Your task to perform on an android device: turn on airplane mode Image 0: 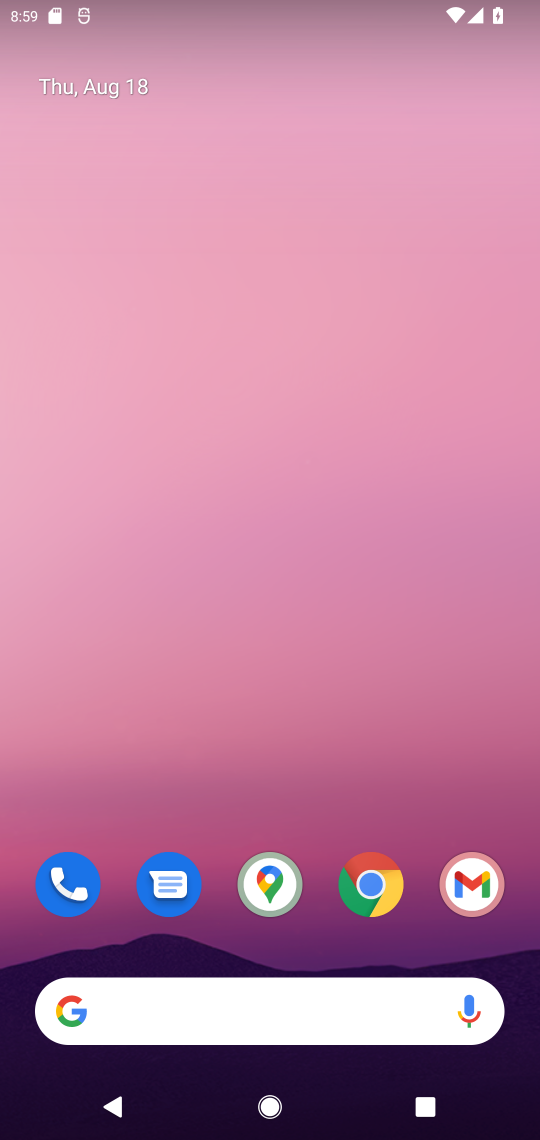
Step 0: drag from (251, 8) to (316, 909)
Your task to perform on an android device: turn on airplane mode Image 1: 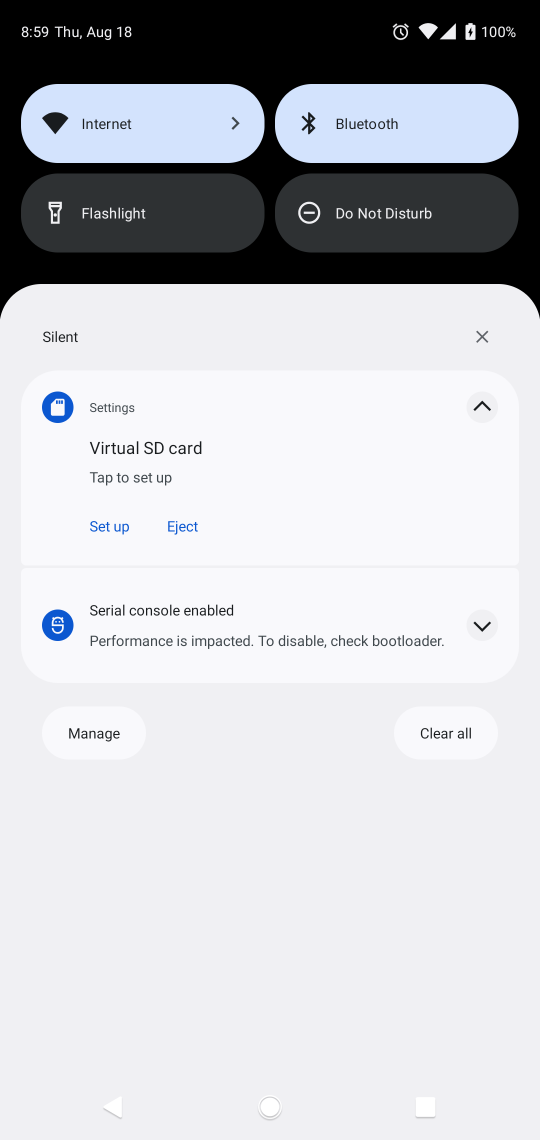
Step 1: drag from (273, 79) to (330, 1060)
Your task to perform on an android device: turn on airplane mode Image 2: 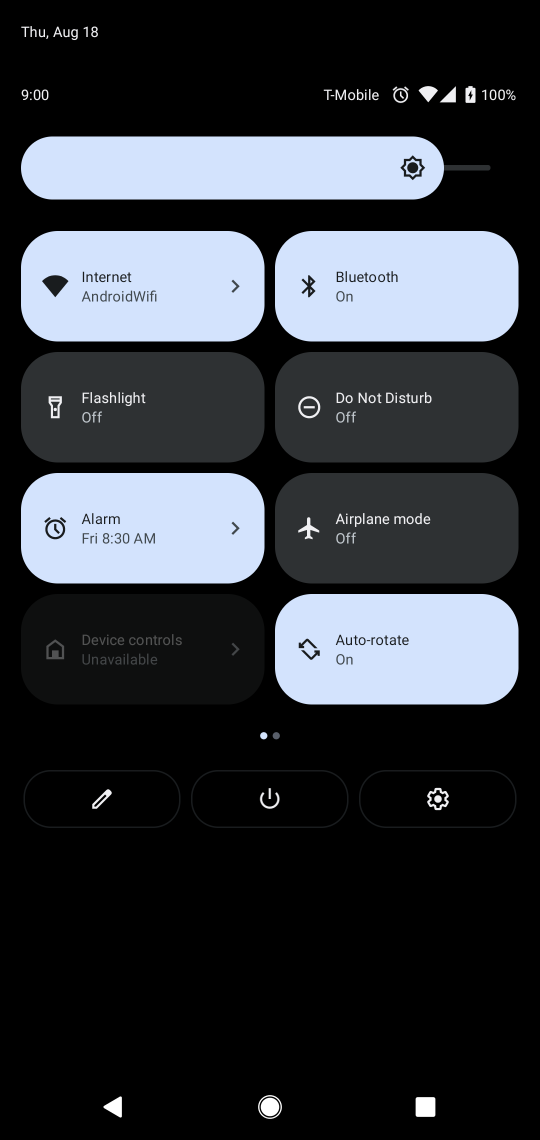
Step 2: click (390, 509)
Your task to perform on an android device: turn on airplane mode Image 3: 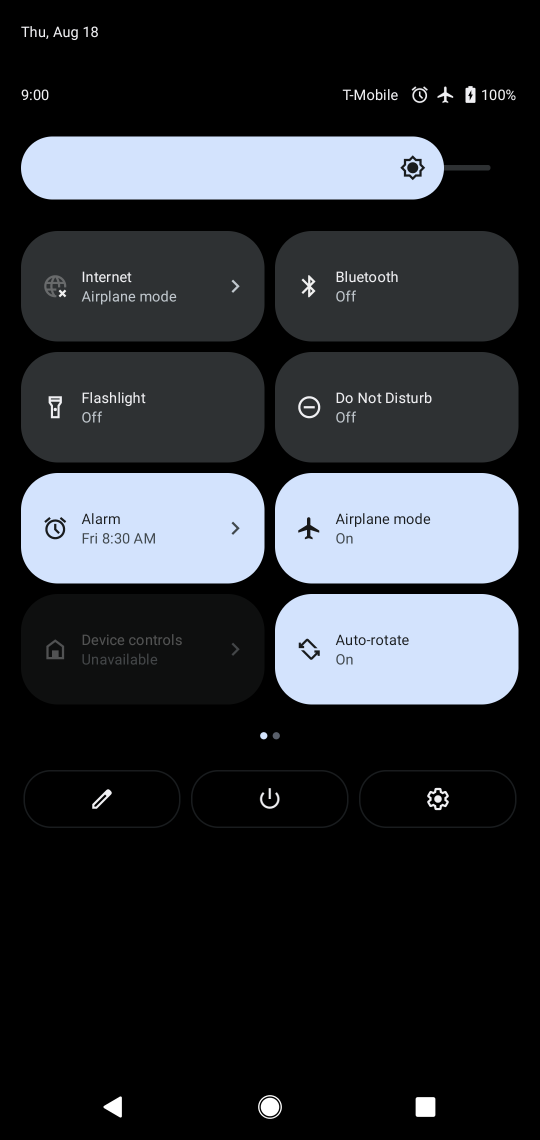
Step 3: task complete